Your task to perform on an android device: Go to Reddit.com Image 0: 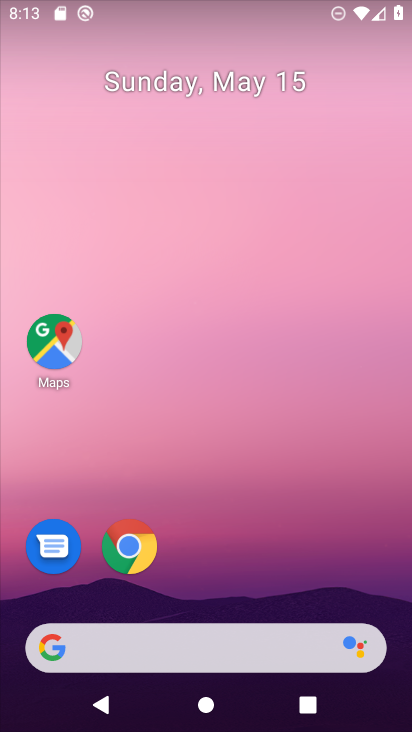
Step 0: click (267, 642)
Your task to perform on an android device: Go to Reddit.com Image 1: 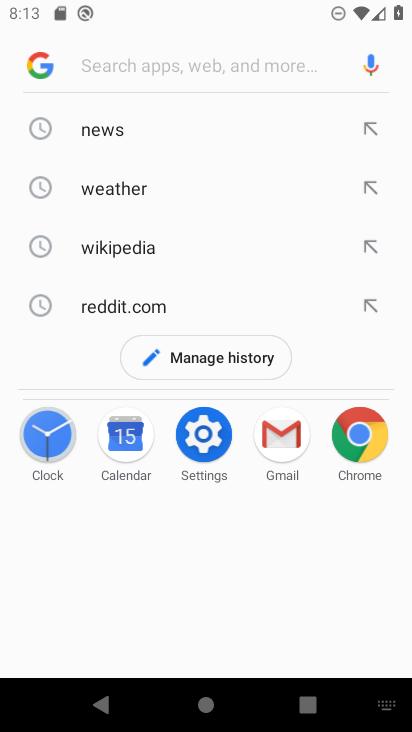
Step 1: click (90, 296)
Your task to perform on an android device: Go to Reddit.com Image 2: 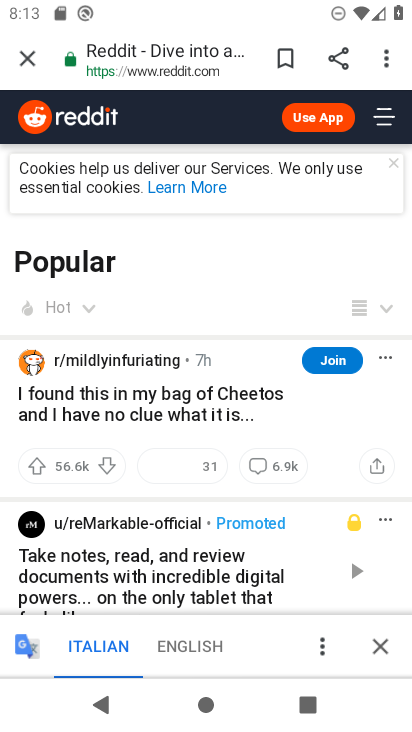
Step 2: task complete